Your task to perform on an android device: What is the recent news? Image 0: 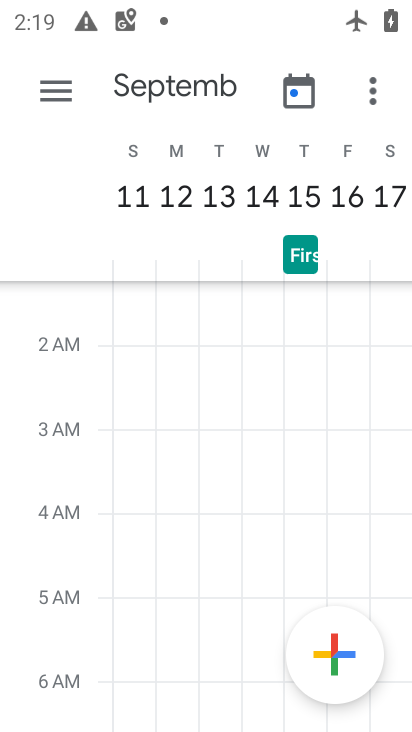
Step 0: press home button
Your task to perform on an android device: What is the recent news? Image 1: 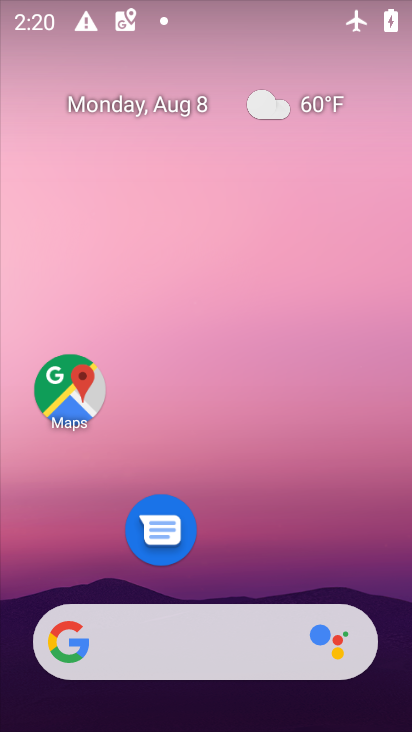
Step 1: task complete